Your task to perform on an android device: make emails show in primary in the gmail app Image 0: 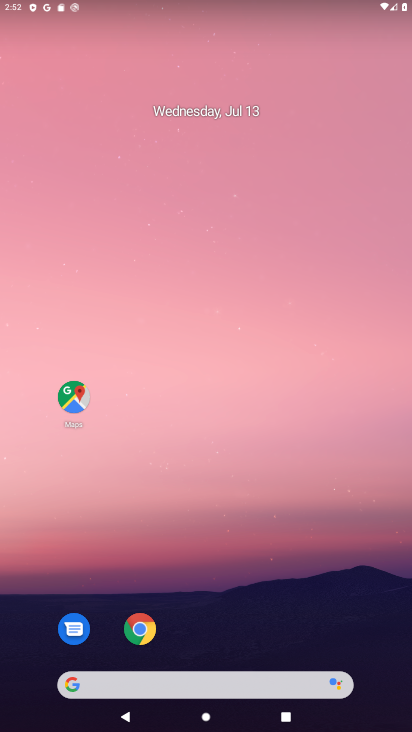
Step 0: drag from (272, 629) to (207, 124)
Your task to perform on an android device: make emails show in primary in the gmail app Image 1: 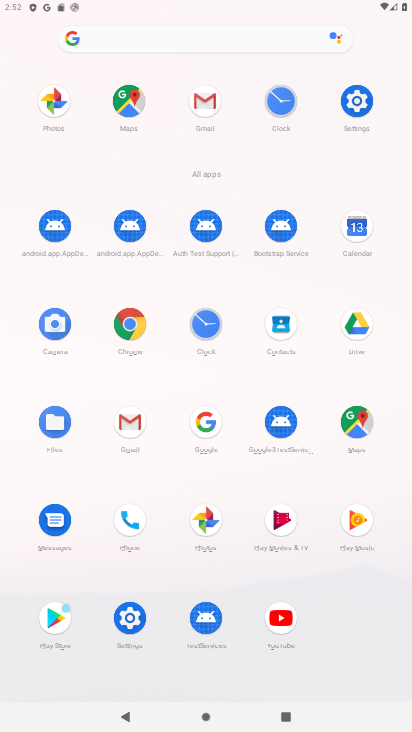
Step 1: click (200, 91)
Your task to perform on an android device: make emails show in primary in the gmail app Image 2: 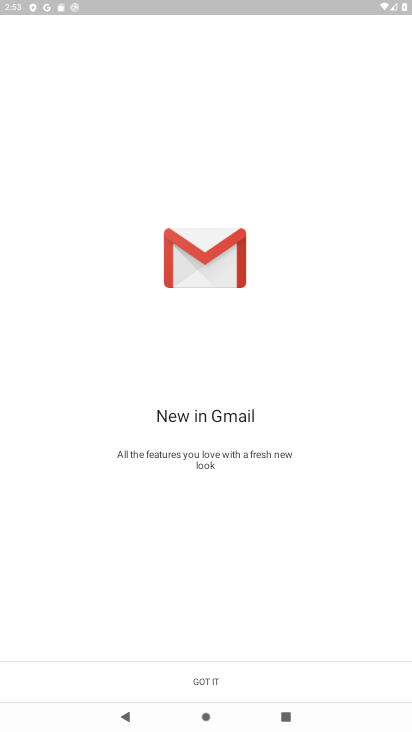
Step 2: click (215, 673)
Your task to perform on an android device: make emails show in primary in the gmail app Image 3: 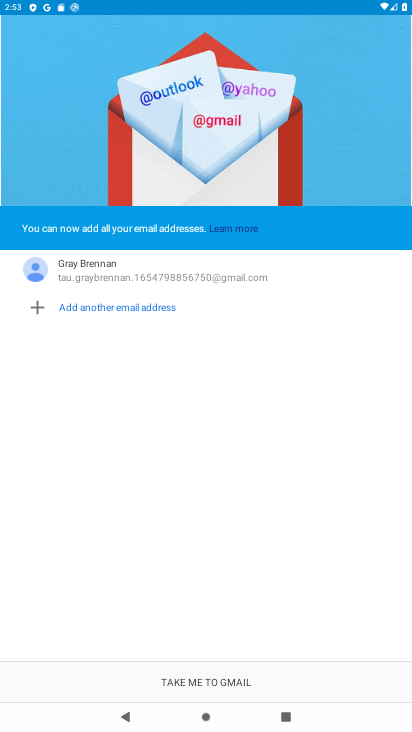
Step 3: click (235, 685)
Your task to perform on an android device: make emails show in primary in the gmail app Image 4: 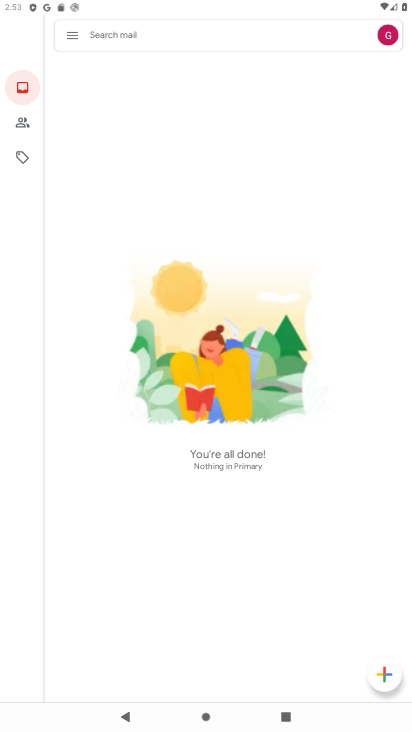
Step 4: click (71, 33)
Your task to perform on an android device: make emails show in primary in the gmail app Image 5: 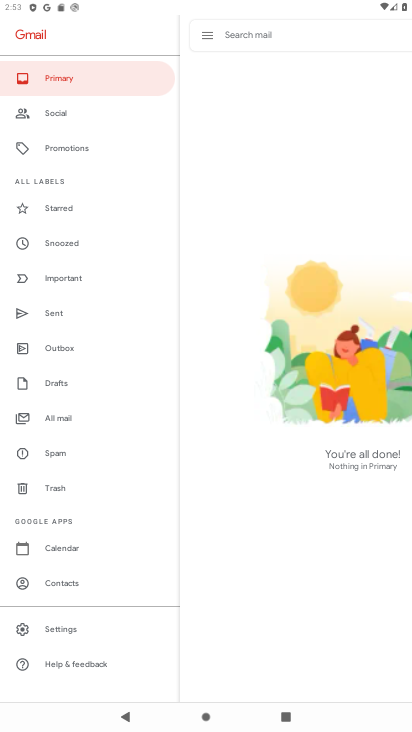
Step 5: click (72, 627)
Your task to perform on an android device: make emails show in primary in the gmail app Image 6: 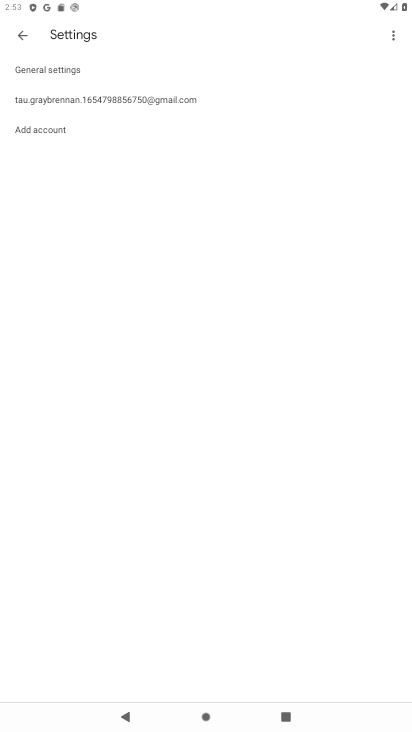
Step 6: click (154, 105)
Your task to perform on an android device: make emails show in primary in the gmail app Image 7: 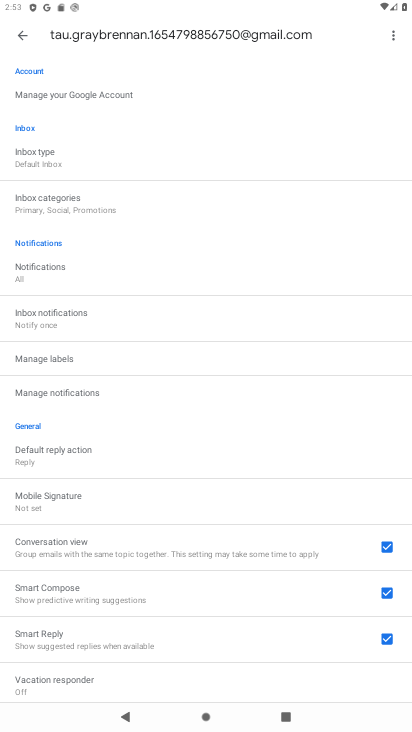
Step 7: click (88, 155)
Your task to perform on an android device: make emails show in primary in the gmail app Image 8: 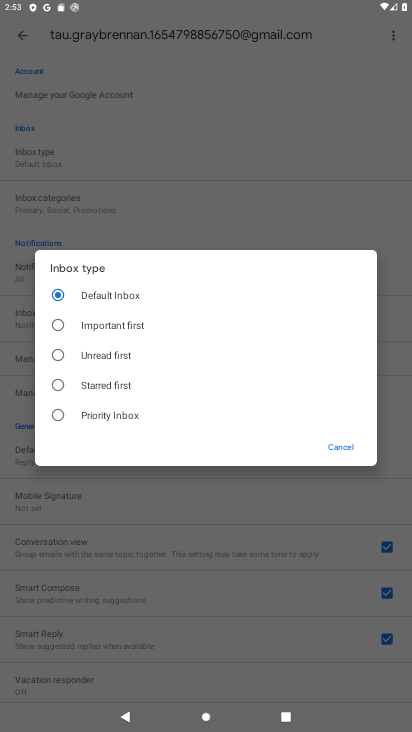
Step 8: task complete